Your task to perform on an android device: open wifi settings Image 0: 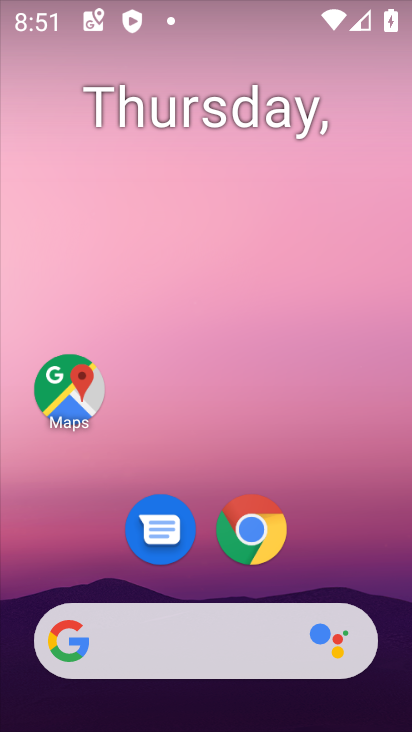
Step 0: drag from (229, 708) to (222, 89)
Your task to perform on an android device: open wifi settings Image 1: 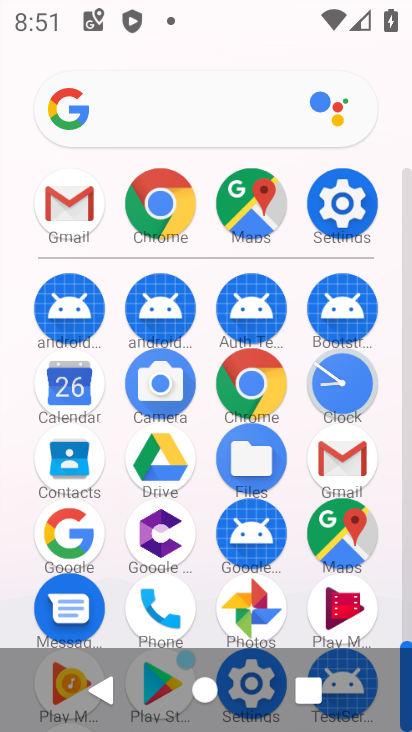
Step 1: click (323, 205)
Your task to perform on an android device: open wifi settings Image 2: 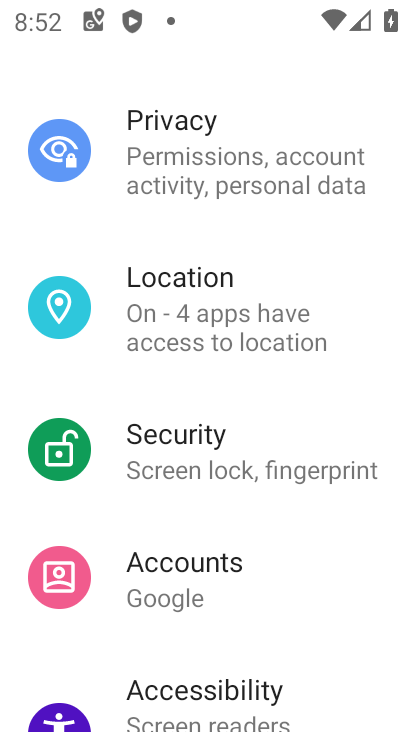
Step 2: drag from (318, 110) to (262, 592)
Your task to perform on an android device: open wifi settings Image 3: 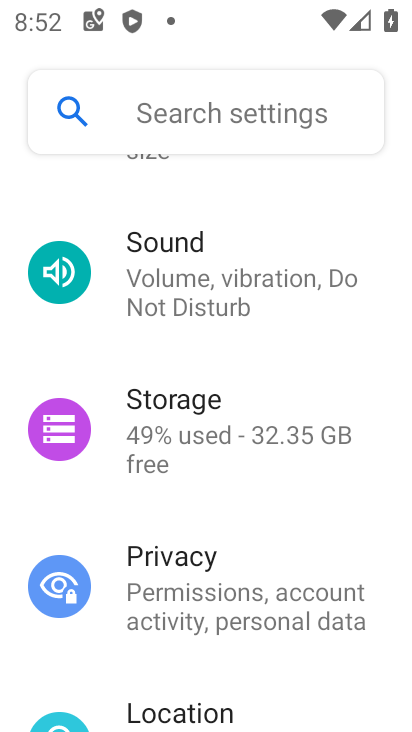
Step 3: drag from (252, 166) to (239, 642)
Your task to perform on an android device: open wifi settings Image 4: 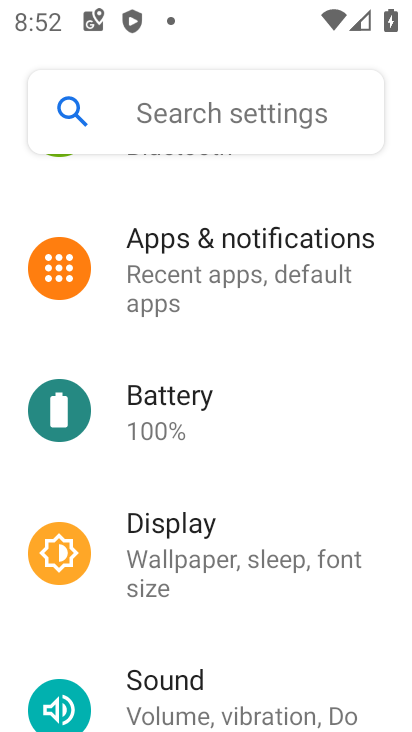
Step 4: drag from (240, 179) to (237, 643)
Your task to perform on an android device: open wifi settings Image 5: 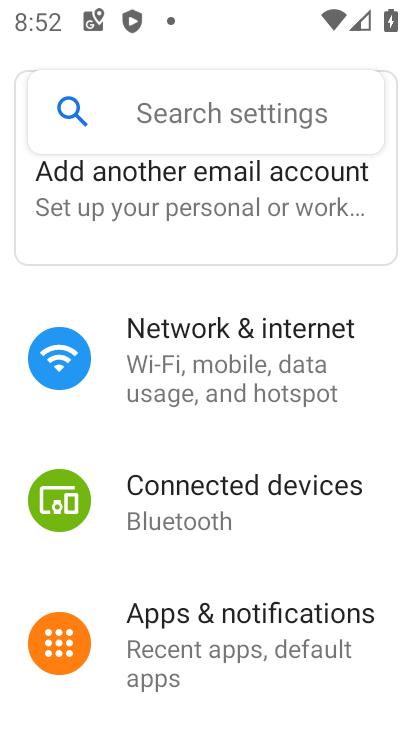
Step 5: click (219, 343)
Your task to perform on an android device: open wifi settings Image 6: 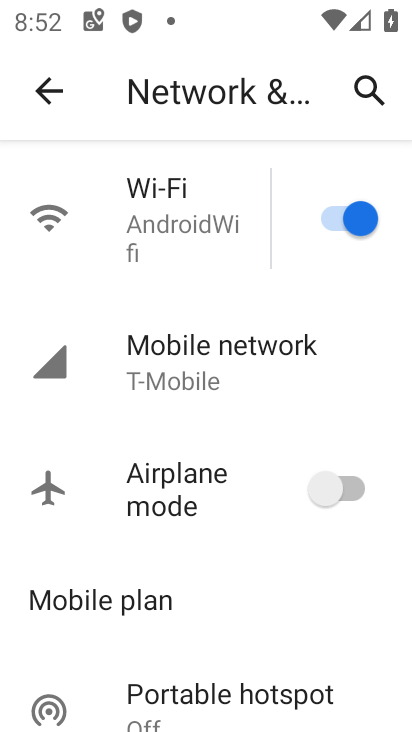
Step 6: click (164, 208)
Your task to perform on an android device: open wifi settings Image 7: 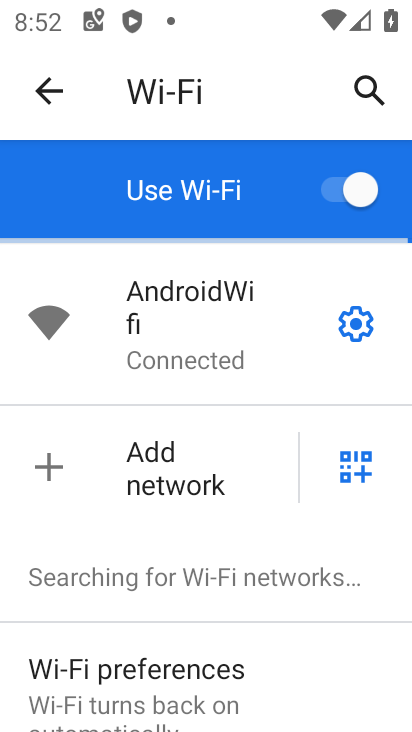
Step 7: task complete